Your task to perform on an android device: make emails show in primary in the gmail app Image 0: 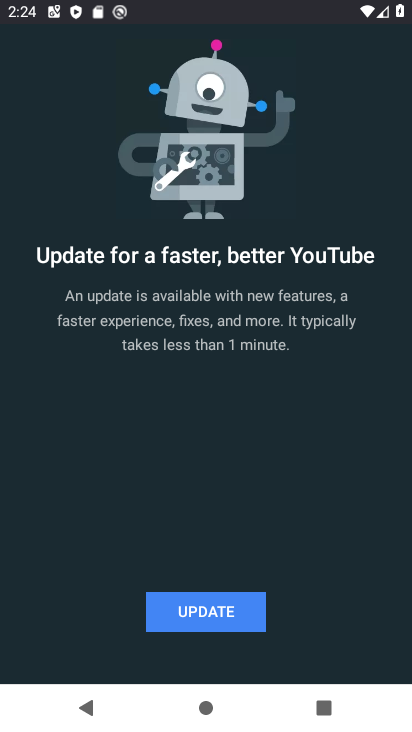
Step 0: press home button
Your task to perform on an android device: make emails show in primary in the gmail app Image 1: 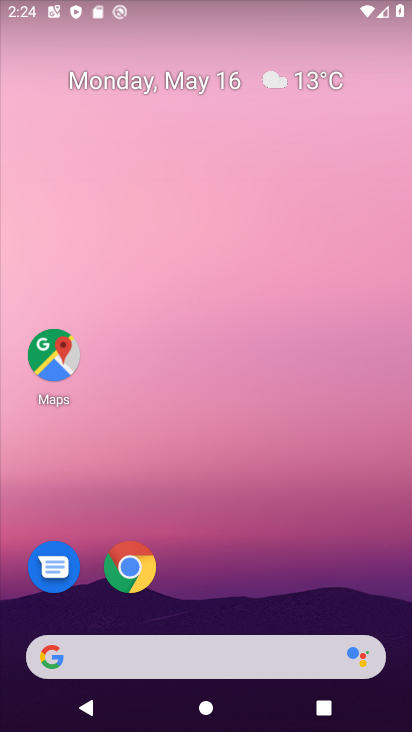
Step 1: drag from (277, 514) to (232, 64)
Your task to perform on an android device: make emails show in primary in the gmail app Image 2: 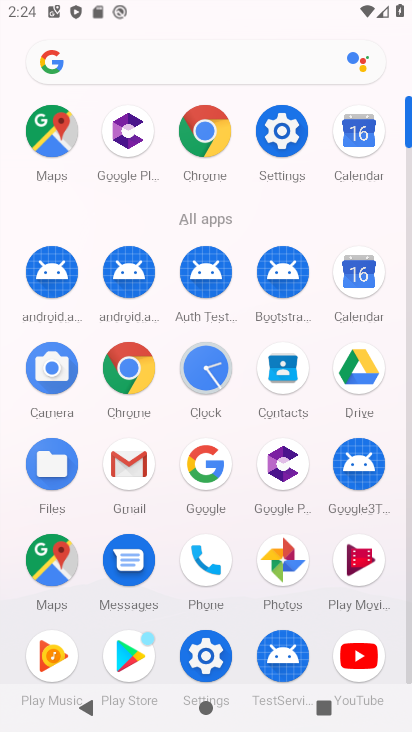
Step 2: click (130, 459)
Your task to perform on an android device: make emails show in primary in the gmail app Image 3: 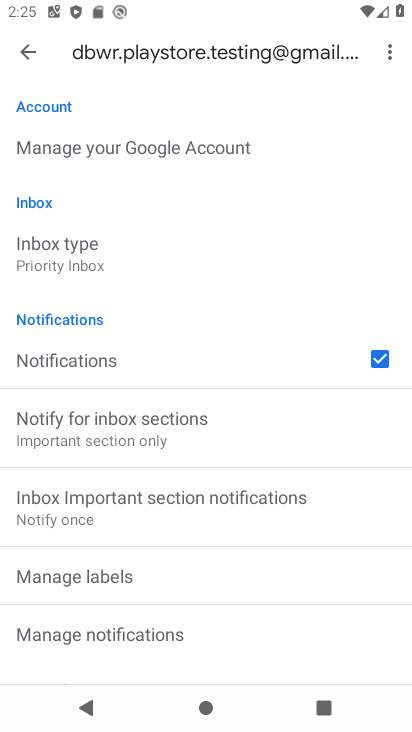
Step 3: drag from (182, 223) to (176, 702)
Your task to perform on an android device: make emails show in primary in the gmail app Image 4: 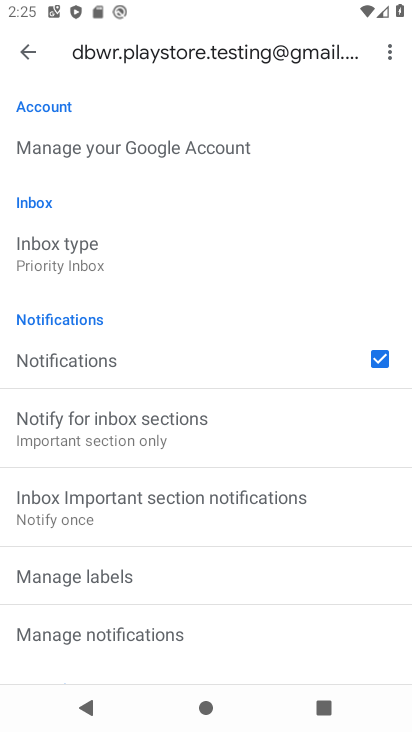
Step 4: click (62, 259)
Your task to perform on an android device: make emails show in primary in the gmail app Image 5: 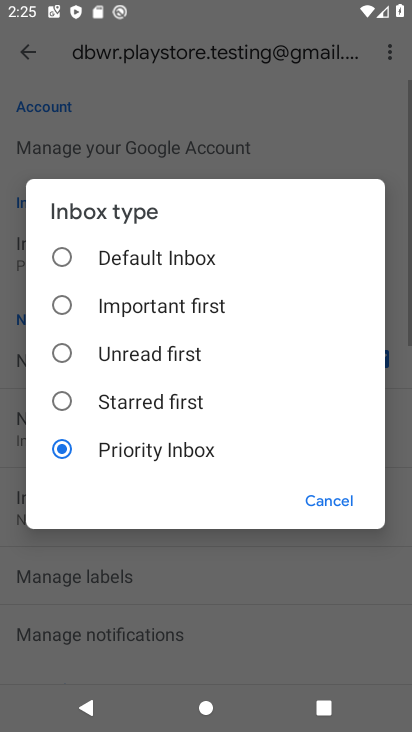
Step 5: click (125, 263)
Your task to perform on an android device: make emails show in primary in the gmail app Image 6: 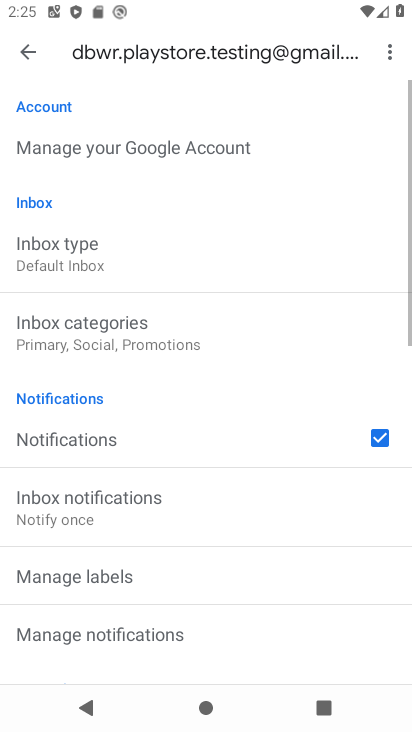
Step 6: click (95, 345)
Your task to perform on an android device: make emails show in primary in the gmail app Image 7: 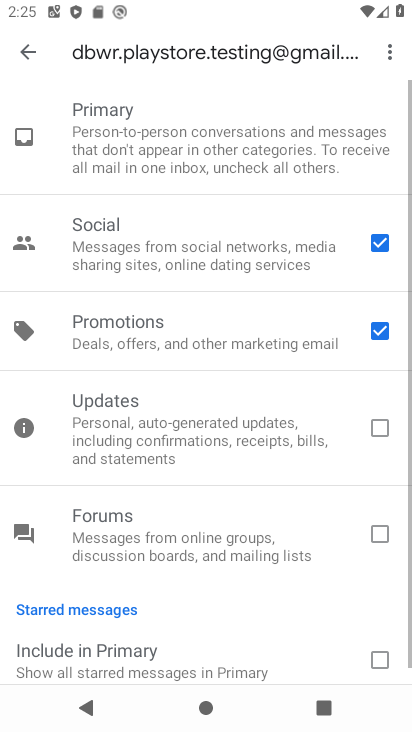
Step 7: task complete